Your task to perform on an android device: Show the shopping cart on amazon. Image 0: 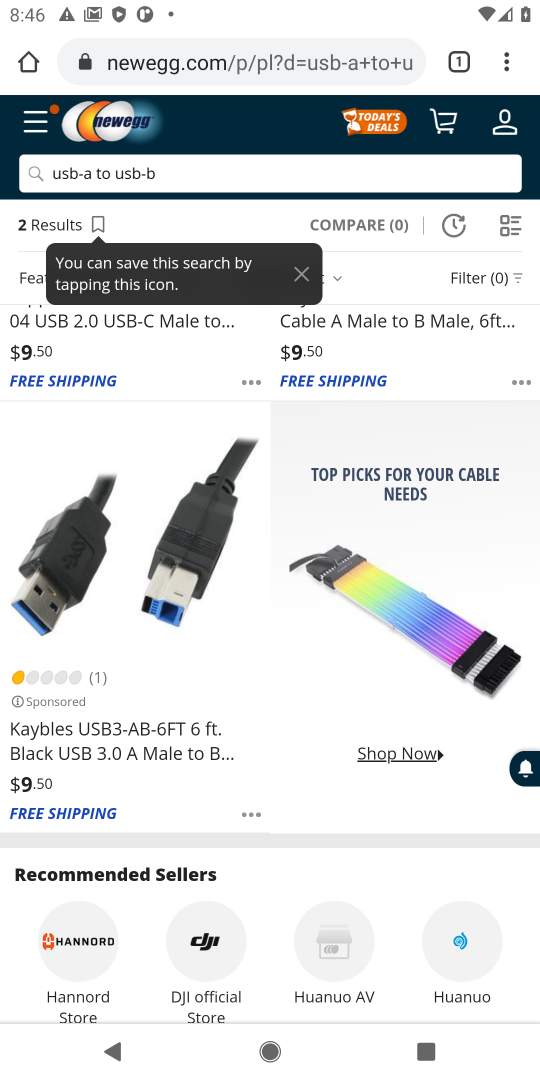
Step 0: press home button
Your task to perform on an android device: Show the shopping cart on amazon. Image 1: 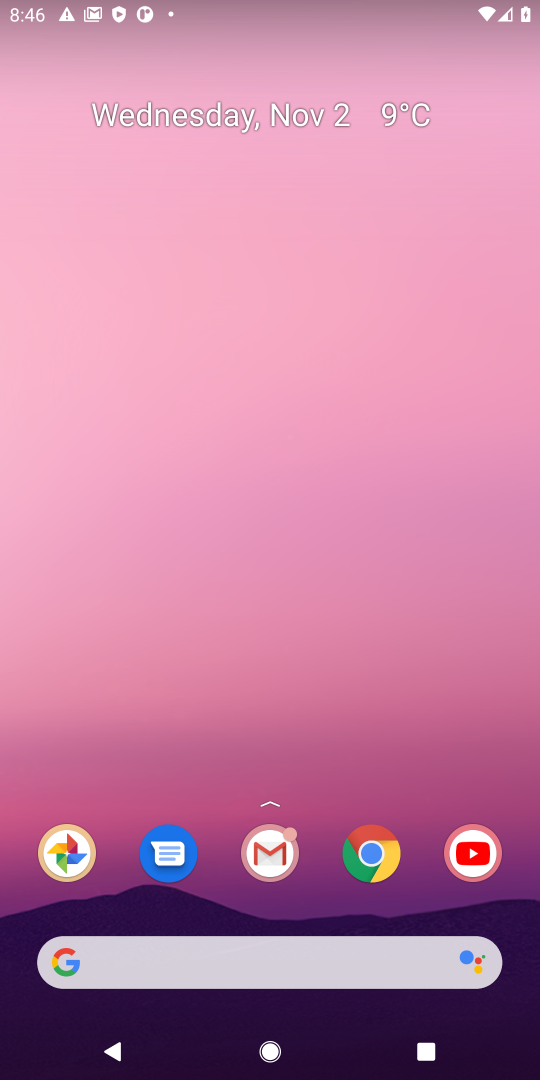
Step 1: click (380, 847)
Your task to perform on an android device: Show the shopping cart on amazon. Image 2: 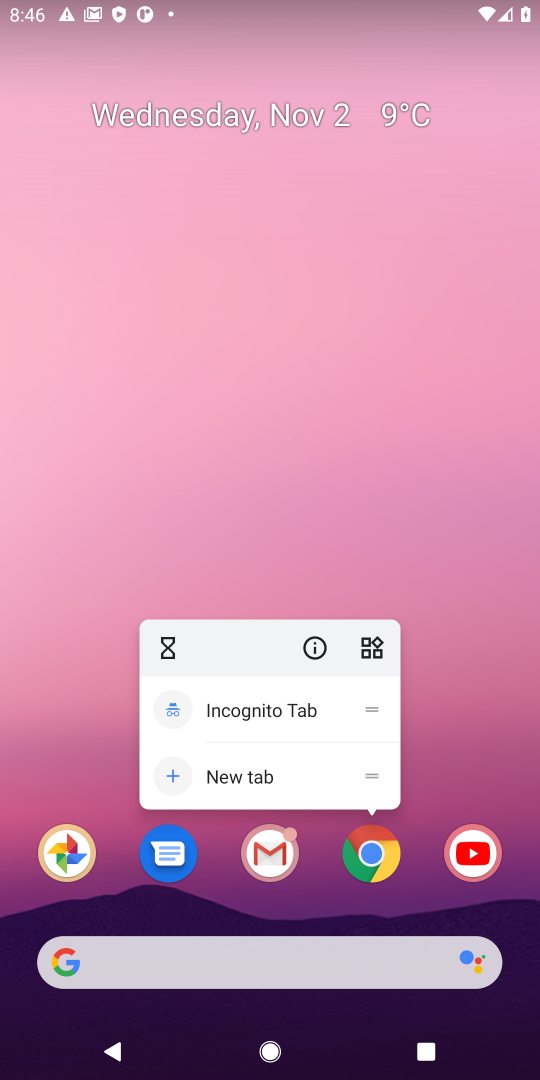
Step 2: click (362, 851)
Your task to perform on an android device: Show the shopping cart on amazon. Image 3: 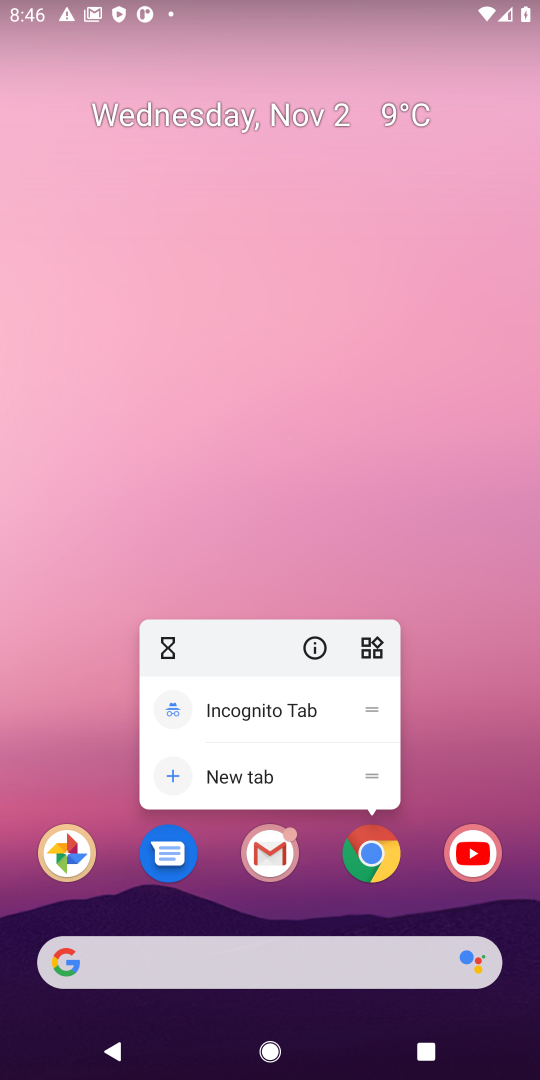
Step 3: click (368, 845)
Your task to perform on an android device: Show the shopping cart on amazon. Image 4: 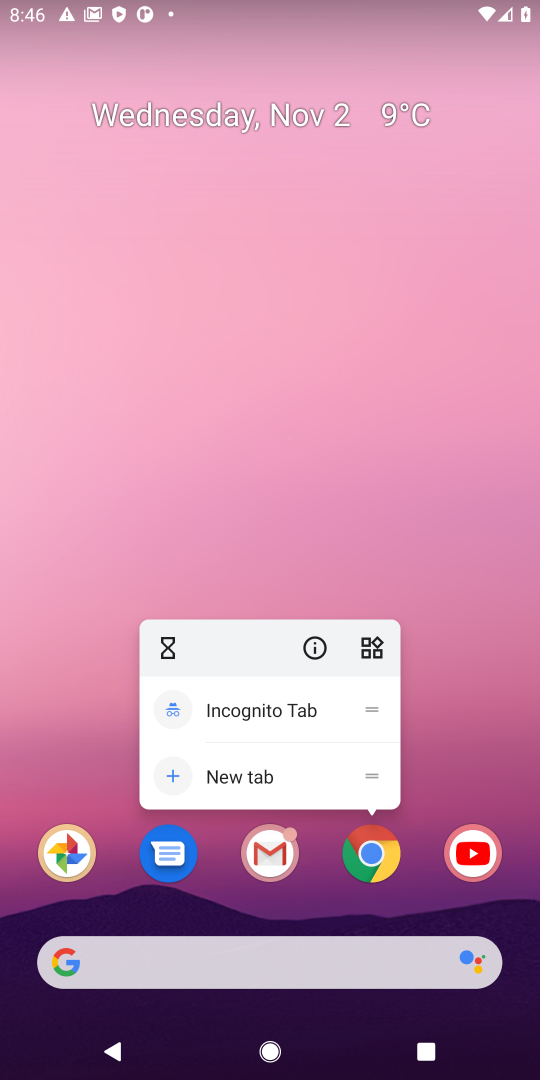
Step 4: click (362, 849)
Your task to perform on an android device: Show the shopping cart on amazon. Image 5: 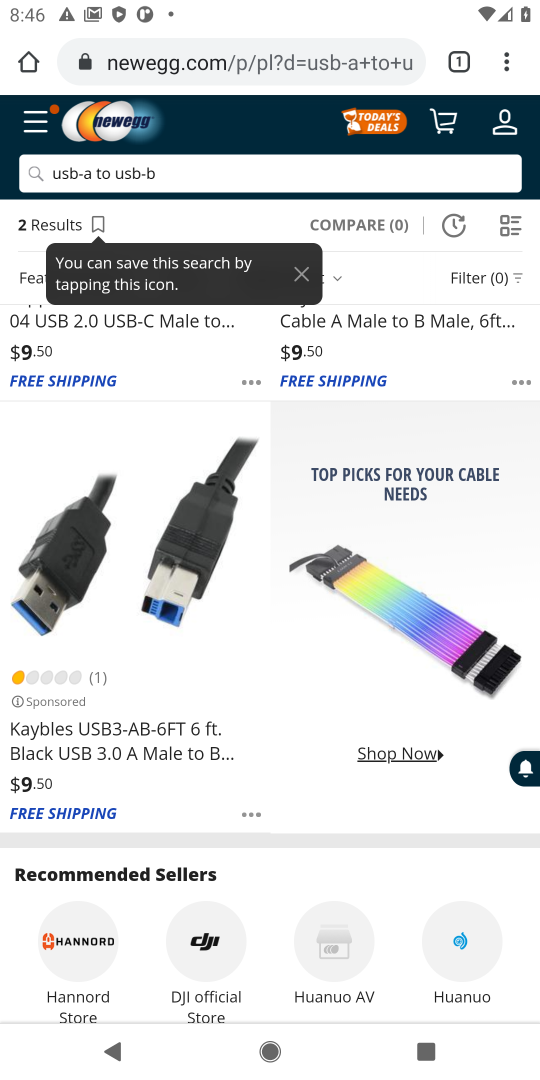
Step 5: click (292, 65)
Your task to perform on an android device: Show the shopping cart on amazon. Image 6: 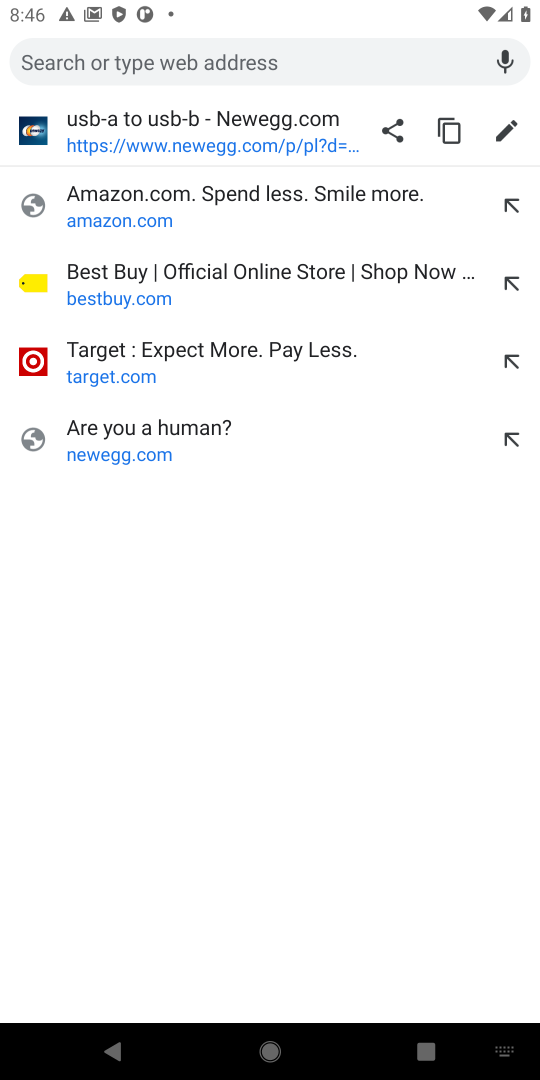
Step 6: type "amazon"
Your task to perform on an android device: Show the shopping cart on amazon. Image 7: 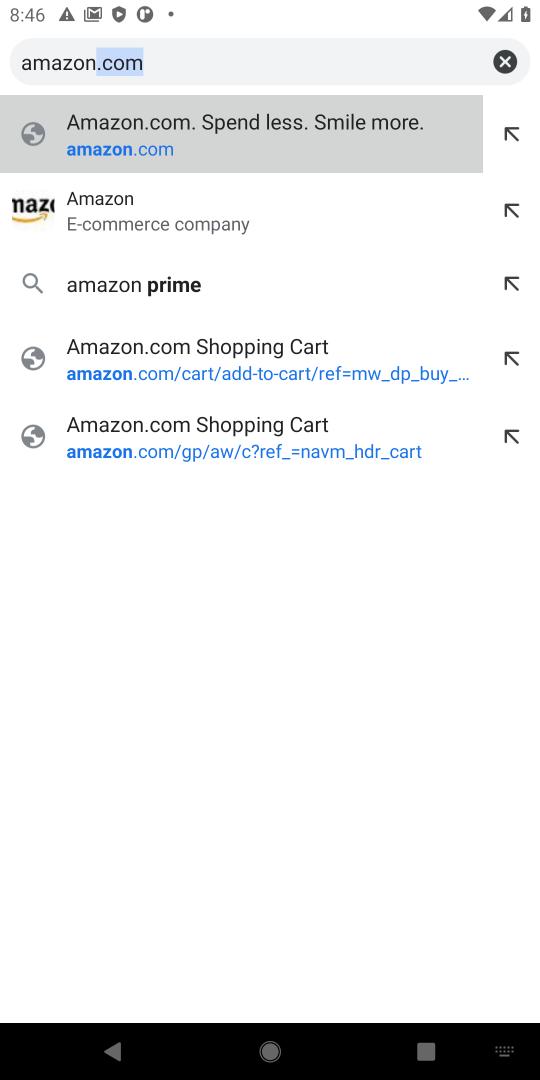
Step 7: press enter
Your task to perform on an android device: Show the shopping cart on amazon. Image 8: 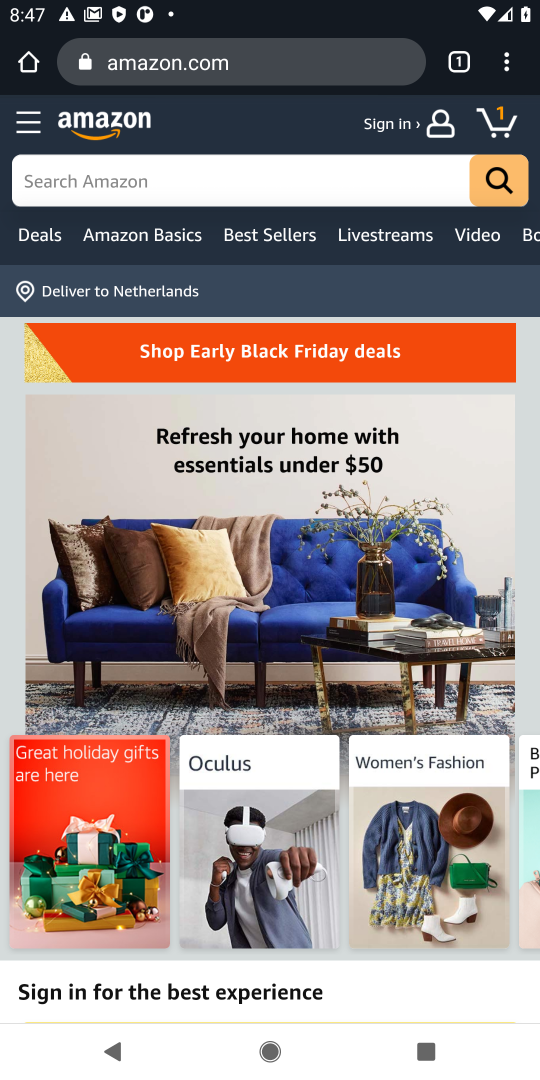
Step 8: click (485, 110)
Your task to perform on an android device: Show the shopping cart on amazon. Image 9: 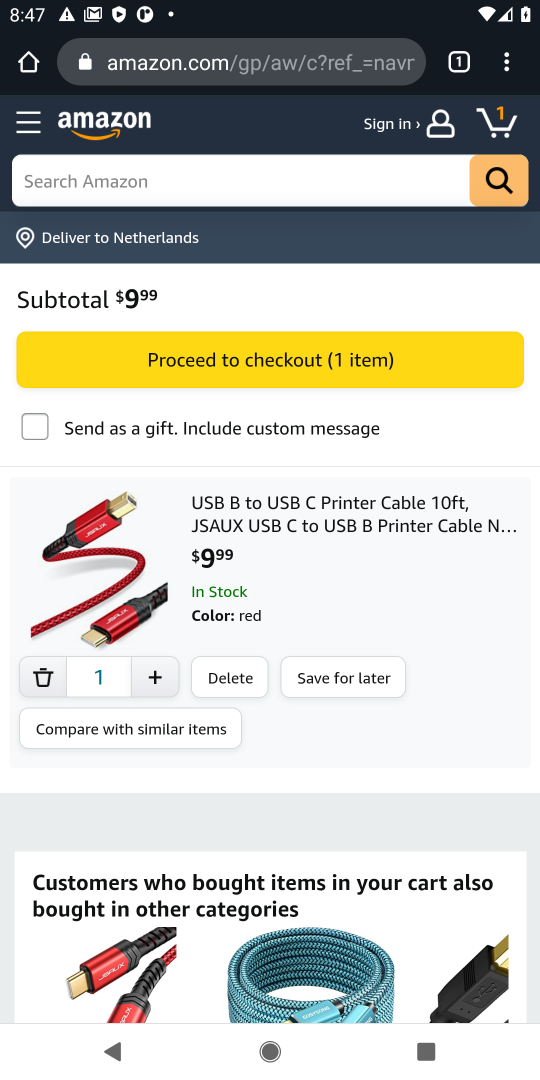
Step 9: click (240, 682)
Your task to perform on an android device: Show the shopping cart on amazon. Image 10: 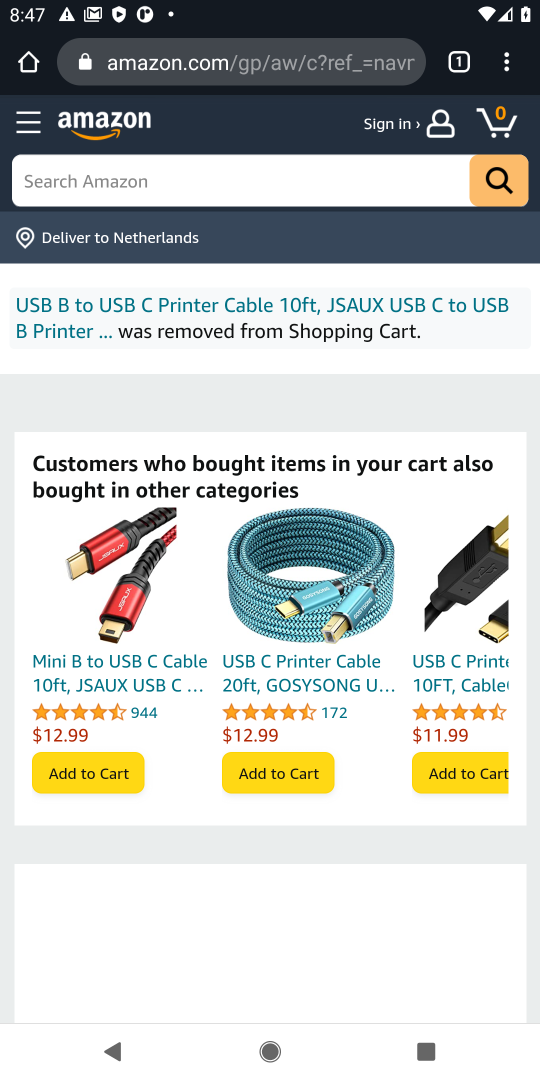
Step 10: task complete